Your task to perform on an android device: turn off picture-in-picture Image 0: 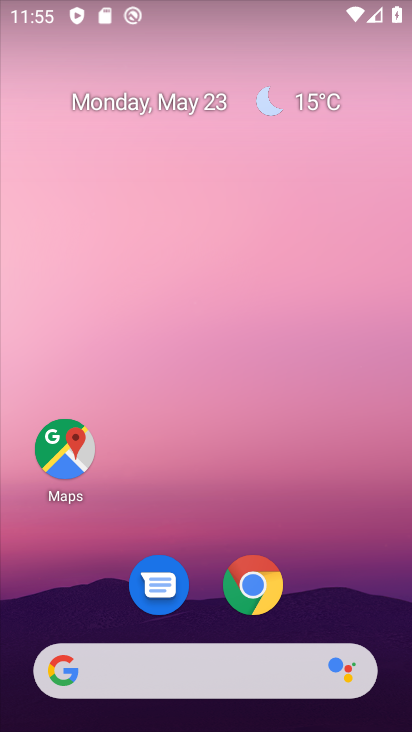
Step 0: click (263, 590)
Your task to perform on an android device: turn off picture-in-picture Image 1: 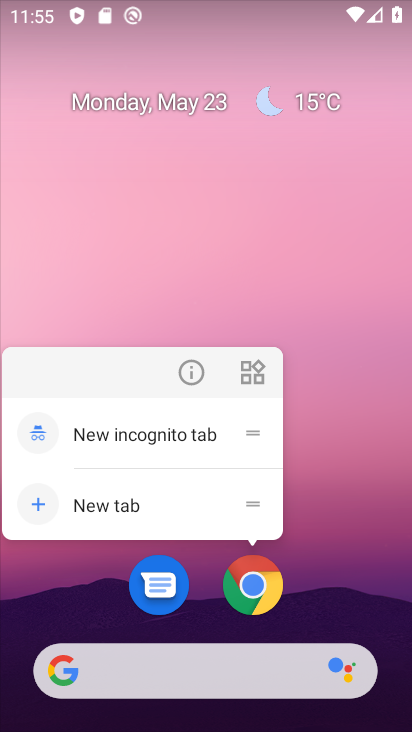
Step 1: click (193, 369)
Your task to perform on an android device: turn off picture-in-picture Image 2: 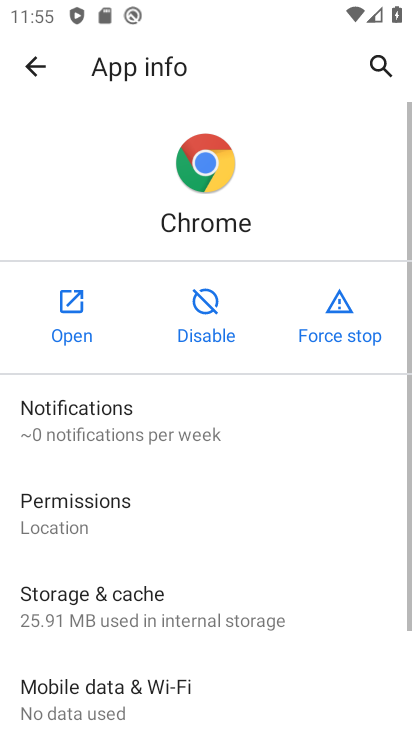
Step 2: drag from (214, 570) to (293, 151)
Your task to perform on an android device: turn off picture-in-picture Image 3: 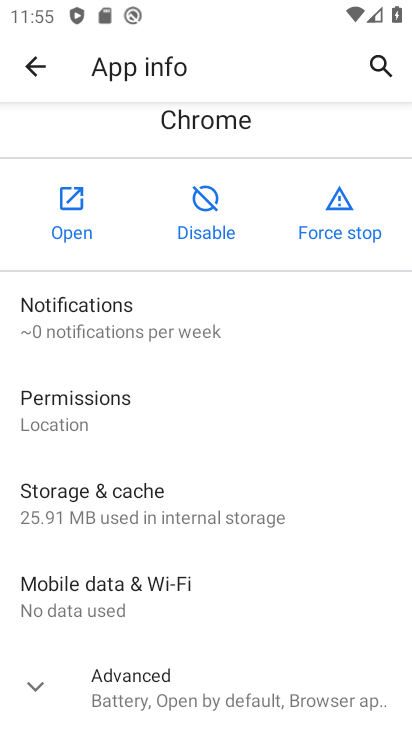
Step 3: click (43, 685)
Your task to perform on an android device: turn off picture-in-picture Image 4: 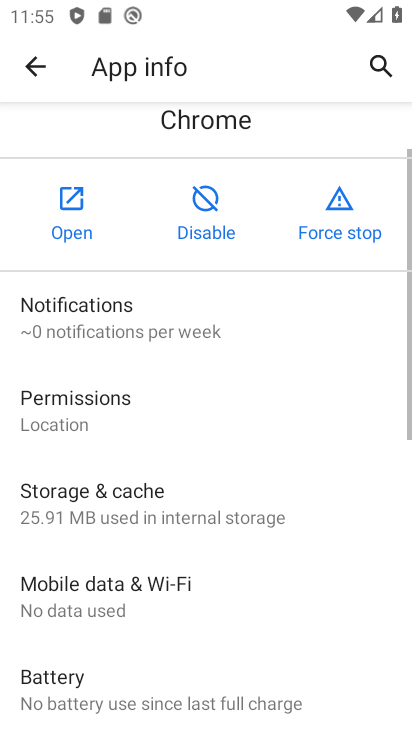
Step 4: drag from (163, 648) to (243, 132)
Your task to perform on an android device: turn off picture-in-picture Image 5: 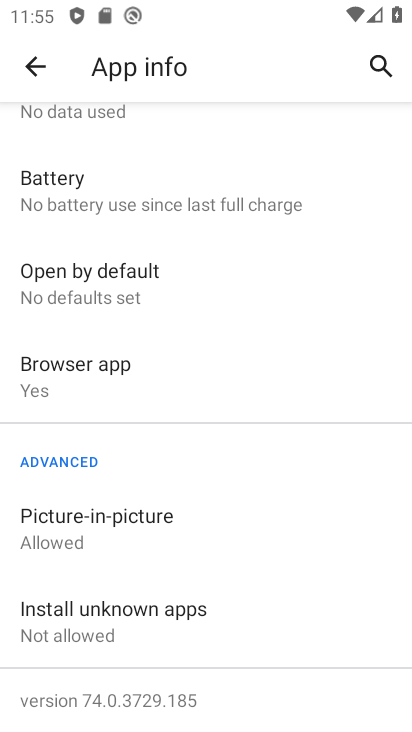
Step 5: click (160, 514)
Your task to perform on an android device: turn off picture-in-picture Image 6: 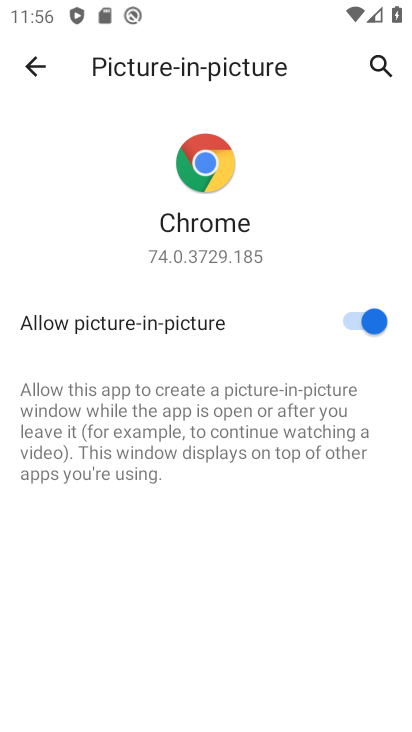
Step 6: click (346, 315)
Your task to perform on an android device: turn off picture-in-picture Image 7: 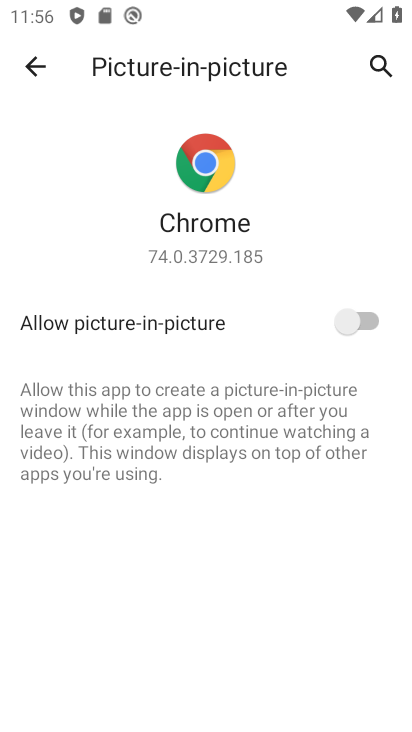
Step 7: task complete